Your task to perform on an android device: Show me the alarms in the clock app Image 0: 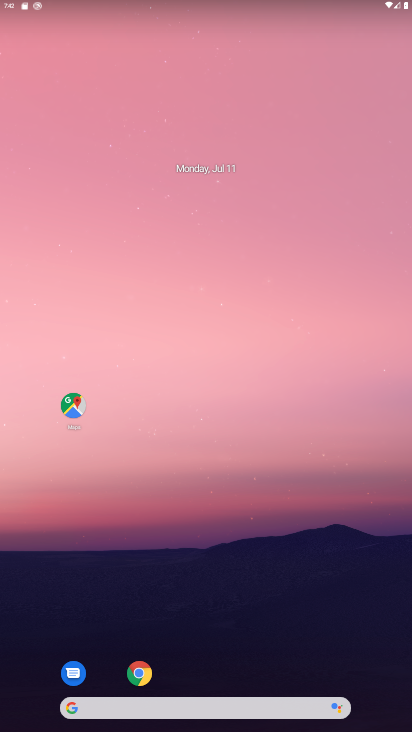
Step 0: drag from (260, 626) to (339, 64)
Your task to perform on an android device: Show me the alarms in the clock app Image 1: 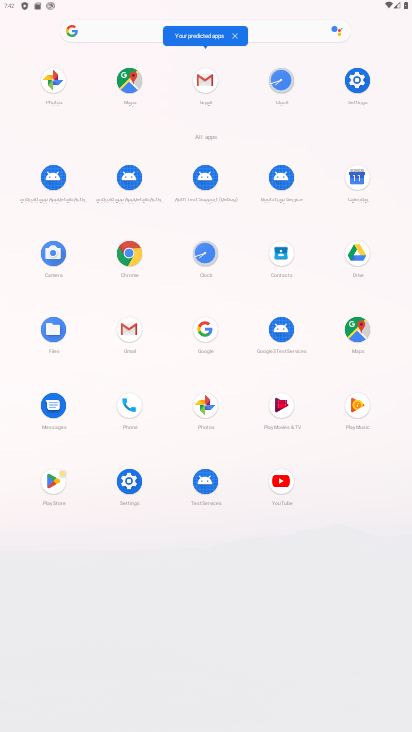
Step 1: click (278, 86)
Your task to perform on an android device: Show me the alarms in the clock app Image 2: 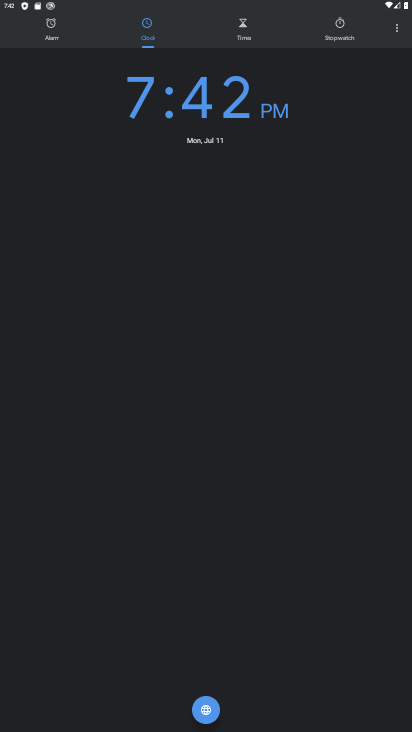
Step 2: click (50, 28)
Your task to perform on an android device: Show me the alarms in the clock app Image 3: 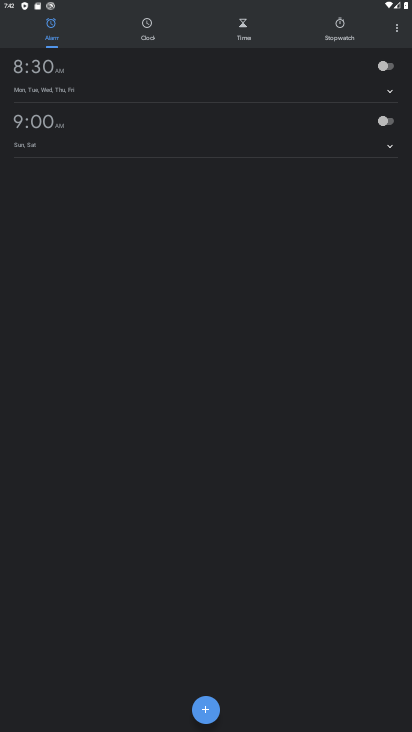
Step 3: task complete